Your task to perform on an android device: Go to Yahoo.com Image 0: 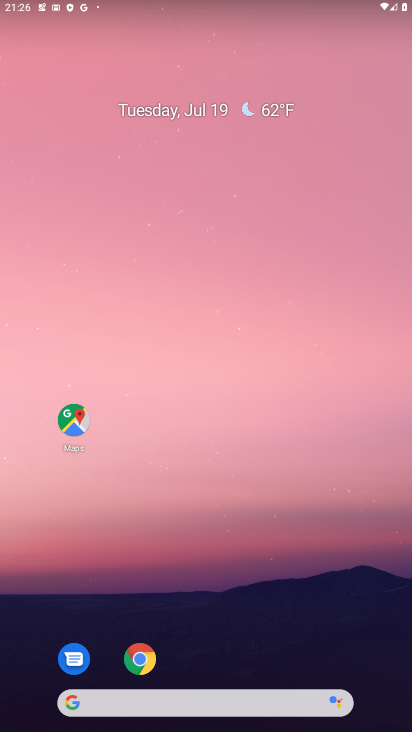
Step 0: press home button
Your task to perform on an android device: Go to Yahoo.com Image 1: 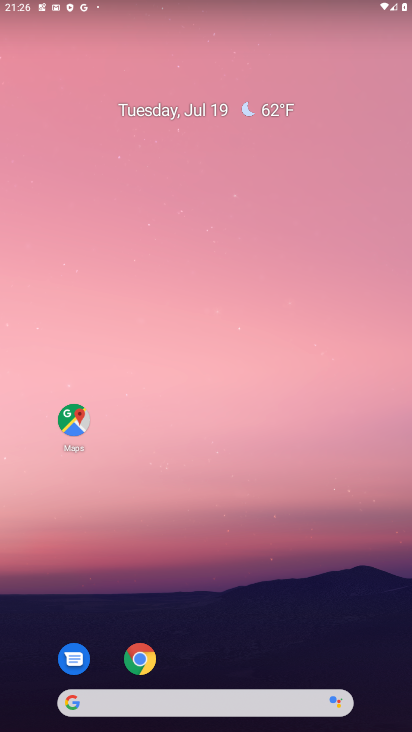
Step 1: click (144, 660)
Your task to perform on an android device: Go to Yahoo.com Image 2: 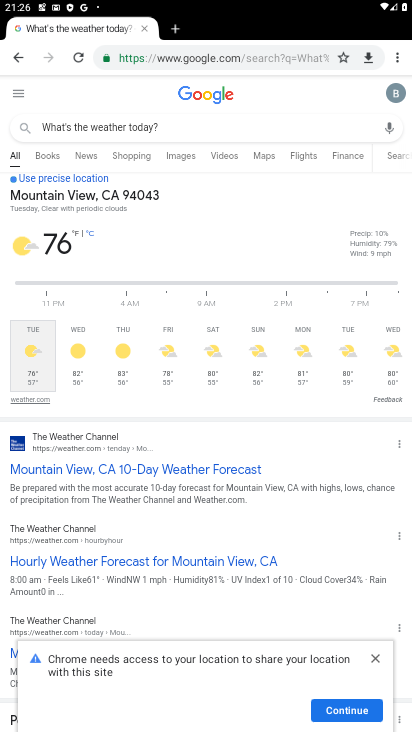
Step 2: click (237, 53)
Your task to perform on an android device: Go to Yahoo.com Image 3: 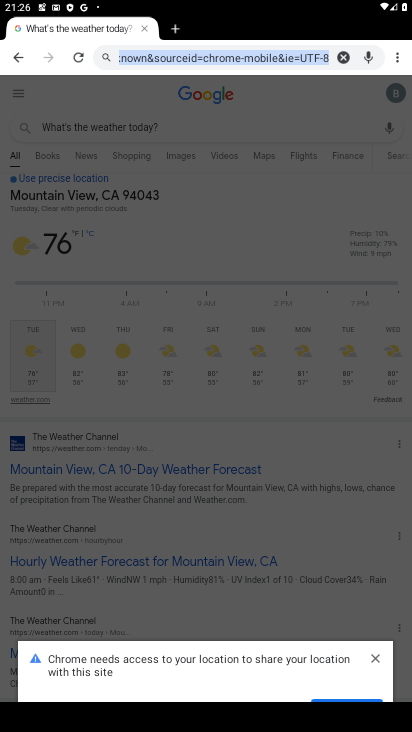
Step 3: type "Yahoo.com"
Your task to perform on an android device: Go to Yahoo.com Image 4: 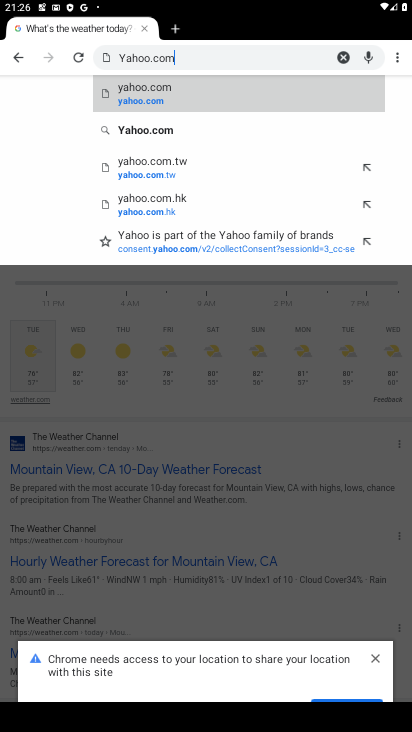
Step 4: click (170, 88)
Your task to perform on an android device: Go to Yahoo.com Image 5: 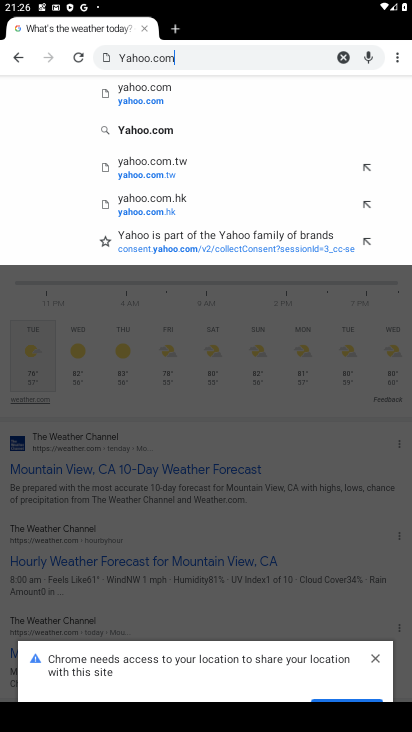
Step 5: click (127, 111)
Your task to perform on an android device: Go to Yahoo.com Image 6: 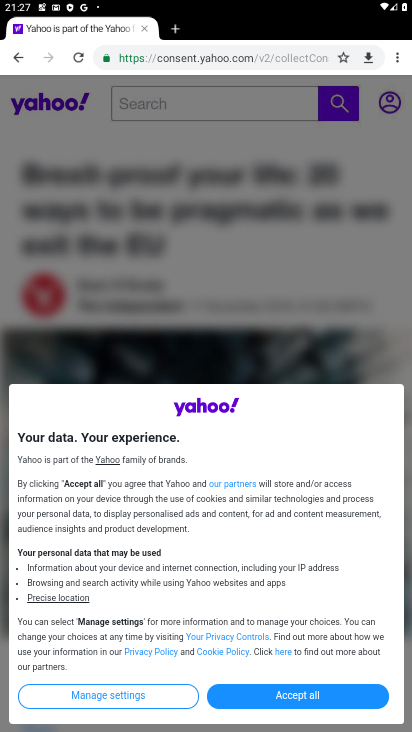
Step 6: task complete